Your task to perform on an android device: remove spam from my inbox in the gmail app Image 0: 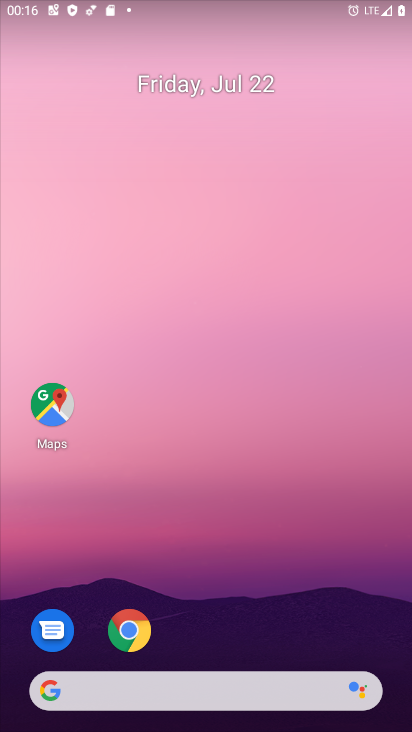
Step 0: drag from (193, 630) to (155, 164)
Your task to perform on an android device: remove spam from my inbox in the gmail app Image 1: 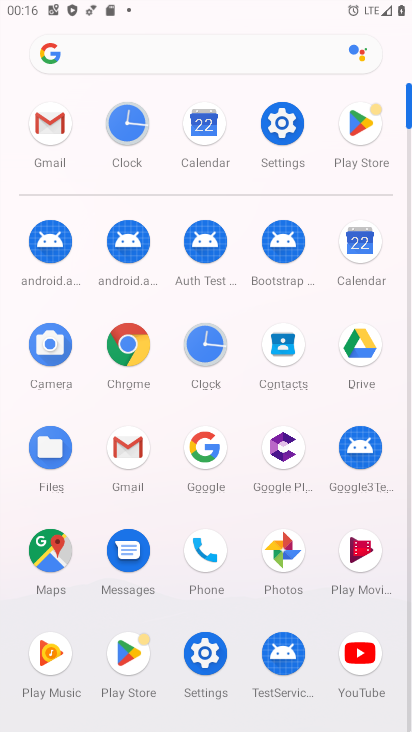
Step 1: click (131, 455)
Your task to perform on an android device: remove spam from my inbox in the gmail app Image 2: 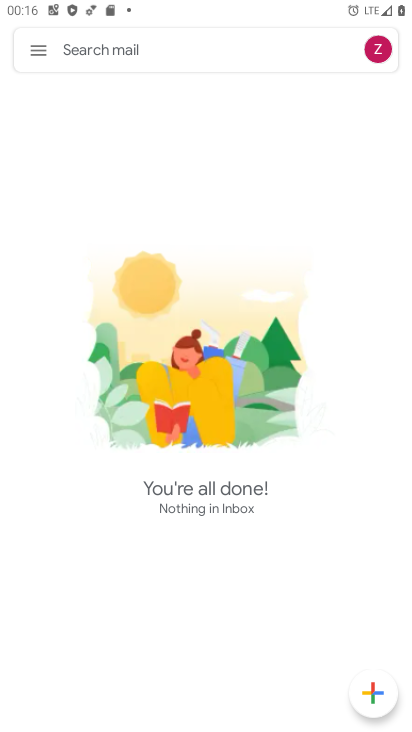
Step 2: click (37, 47)
Your task to perform on an android device: remove spam from my inbox in the gmail app Image 3: 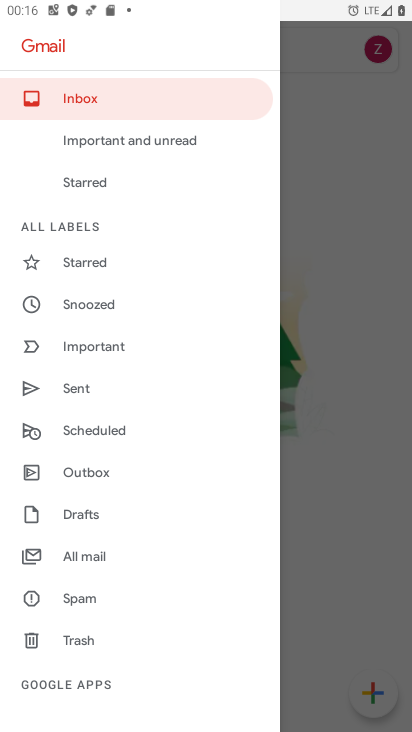
Step 3: click (110, 94)
Your task to perform on an android device: remove spam from my inbox in the gmail app Image 4: 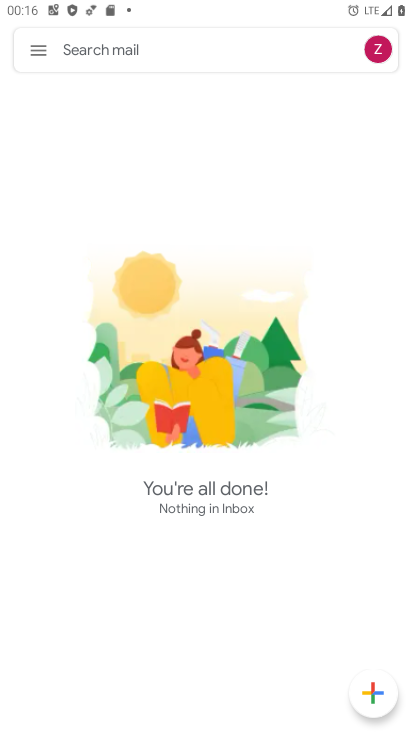
Step 4: task complete